Your task to perform on an android device: Search for vegetarian restaurants on Maps Image 0: 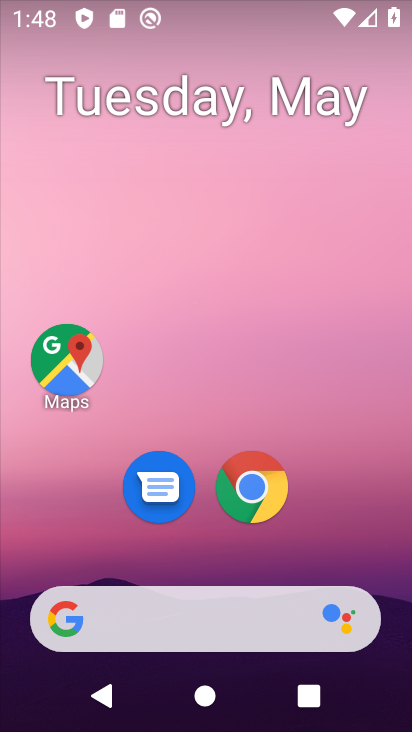
Step 0: drag from (361, 522) to (363, 53)
Your task to perform on an android device: Search for vegetarian restaurants on Maps Image 1: 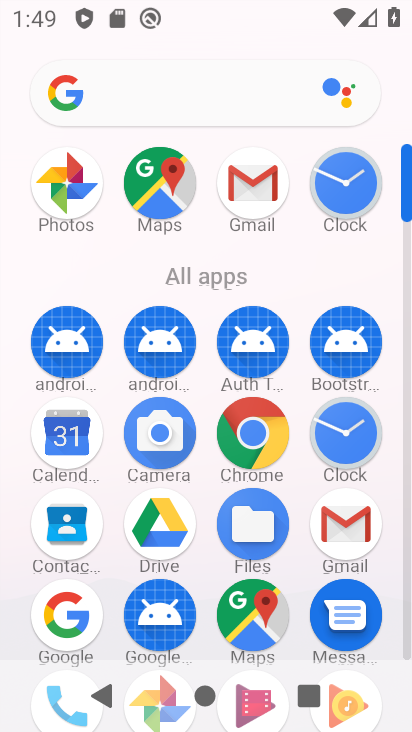
Step 1: click (268, 626)
Your task to perform on an android device: Search for vegetarian restaurants on Maps Image 2: 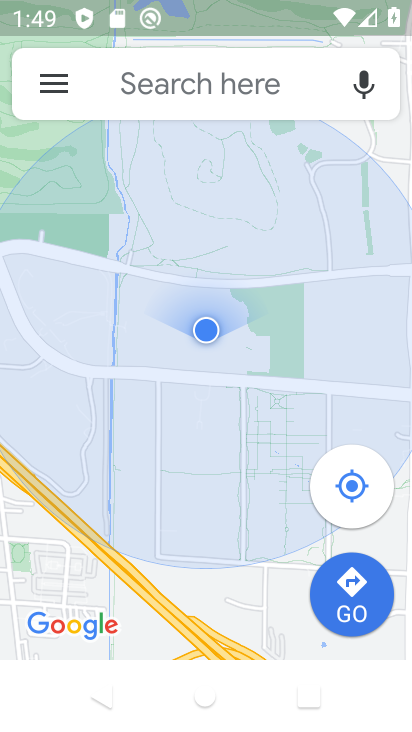
Step 2: click (192, 86)
Your task to perform on an android device: Search for vegetarian restaurants on Maps Image 3: 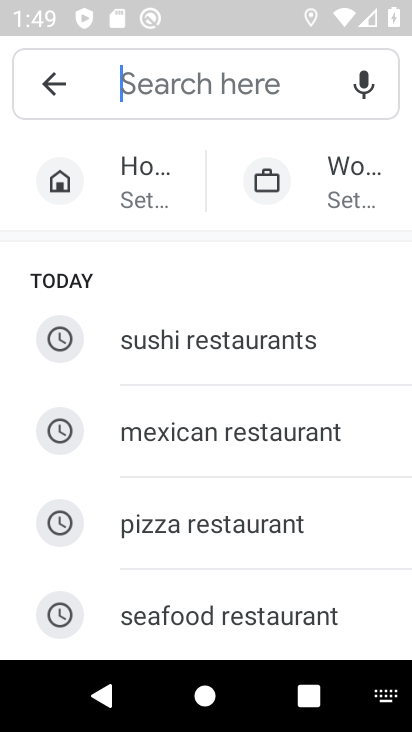
Step 3: type "vegetrain restaurants"
Your task to perform on an android device: Search for vegetarian restaurants on Maps Image 4: 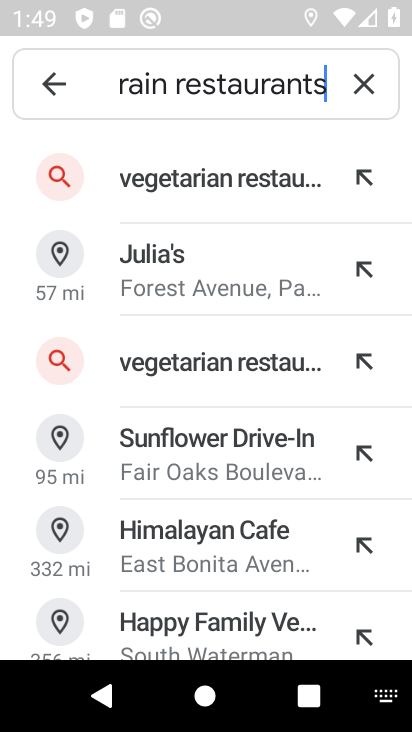
Step 4: click (246, 185)
Your task to perform on an android device: Search for vegetarian restaurants on Maps Image 5: 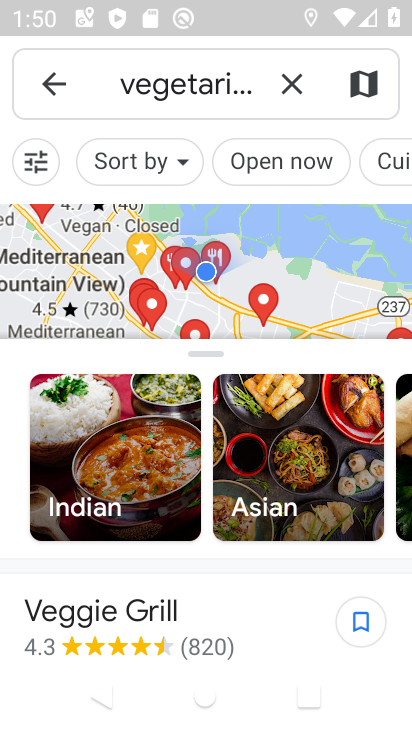
Step 5: task complete